Your task to perform on an android device: change notifications settings Image 0: 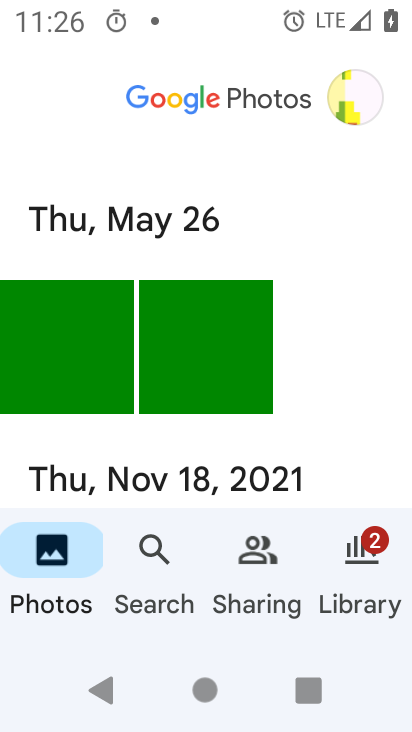
Step 0: drag from (214, 488) to (287, 261)
Your task to perform on an android device: change notifications settings Image 1: 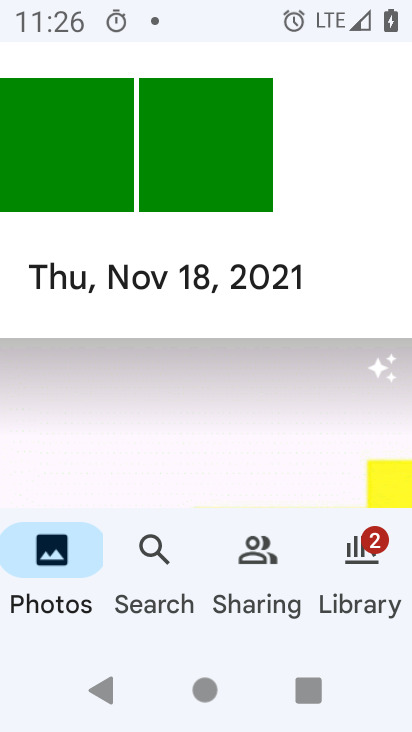
Step 1: drag from (358, 148) to (337, 694)
Your task to perform on an android device: change notifications settings Image 2: 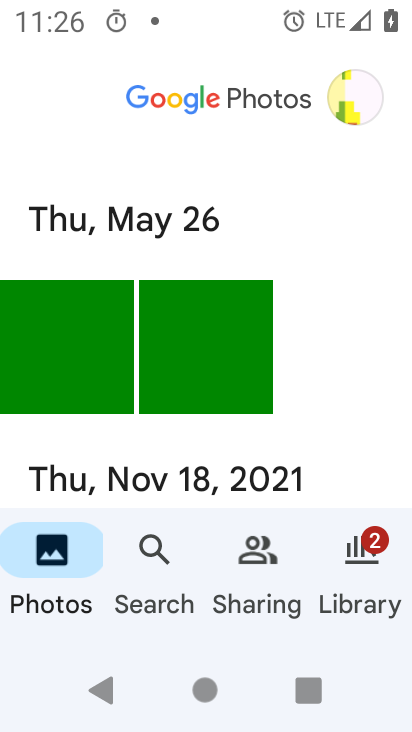
Step 2: press home button
Your task to perform on an android device: change notifications settings Image 3: 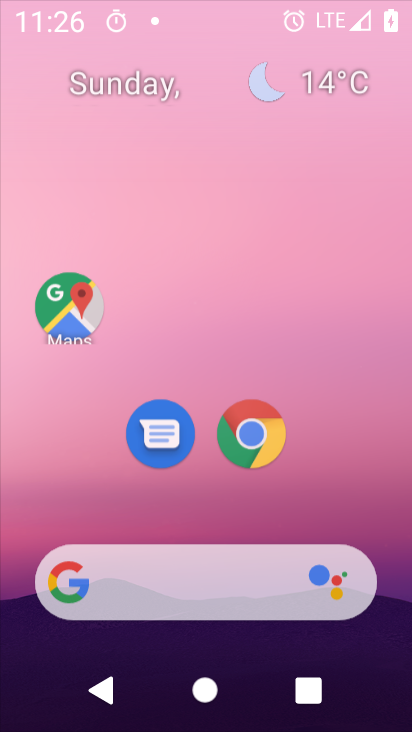
Step 3: drag from (193, 579) to (335, 248)
Your task to perform on an android device: change notifications settings Image 4: 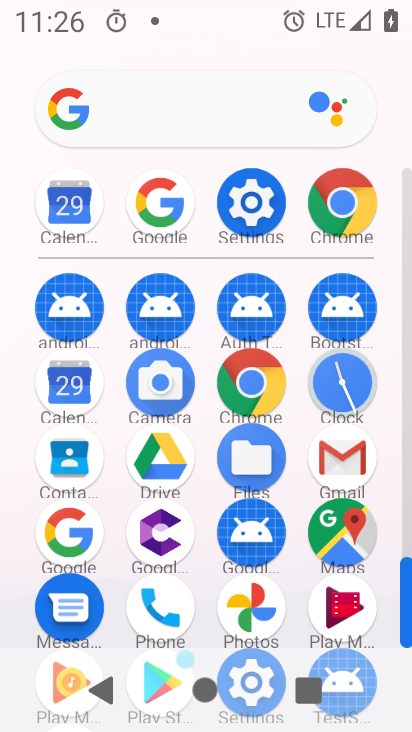
Step 4: click (248, 207)
Your task to perform on an android device: change notifications settings Image 5: 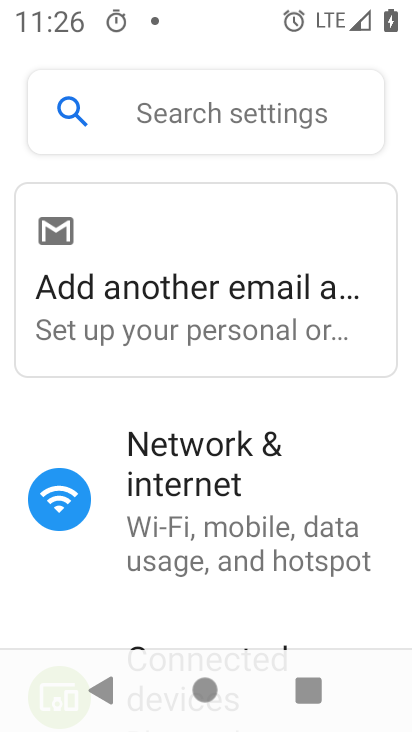
Step 5: drag from (296, 557) to (302, 331)
Your task to perform on an android device: change notifications settings Image 6: 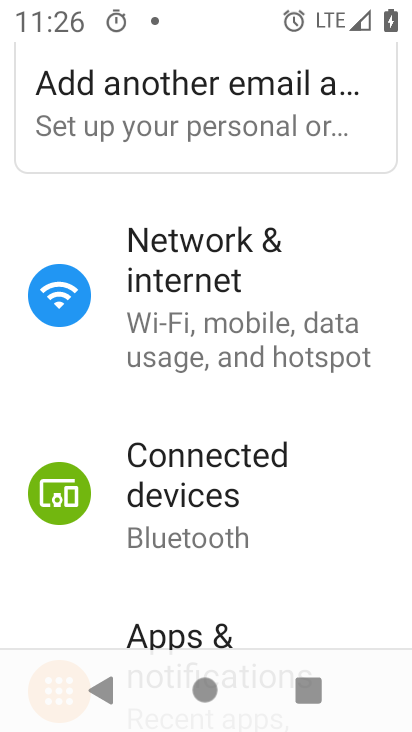
Step 6: drag from (233, 574) to (260, 310)
Your task to perform on an android device: change notifications settings Image 7: 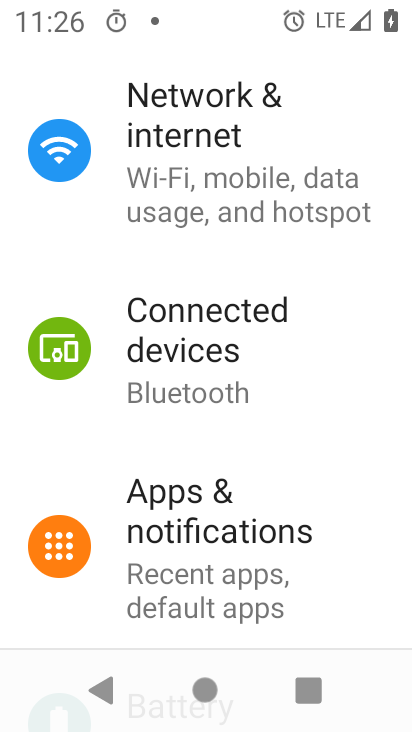
Step 7: click (201, 481)
Your task to perform on an android device: change notifications settings Image 8: 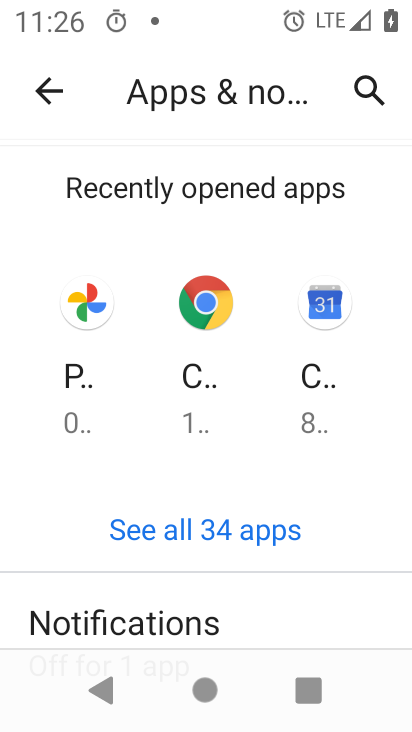
Step 8: drag from (217, 593) to (324, 105)
Your task to perform on an android device: change notifications settings Image 9: 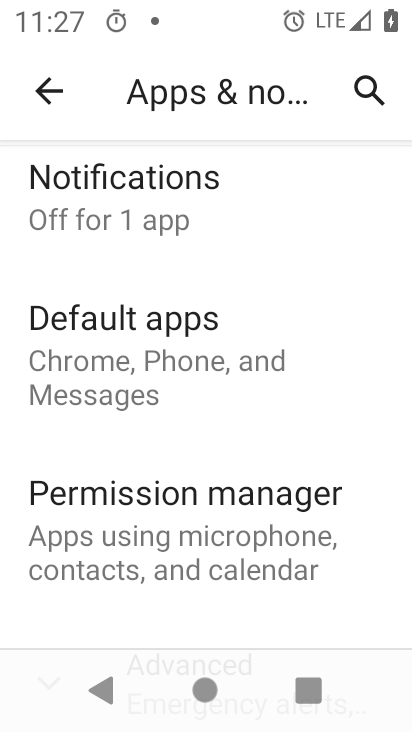
Step 9: drag from (190, 351) to (218, 241)
Your task to perform on an android device: change notifications settings Image 10: 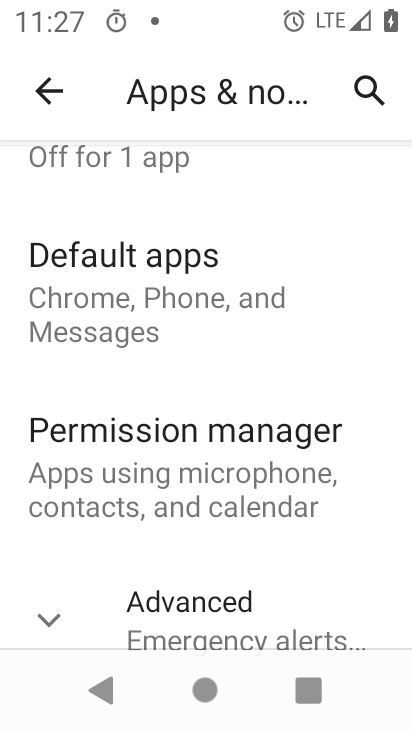
Step 10: drag from (186, 266) to (195, 521)
Your task to perform on an android device: change notifications settings Image 11: 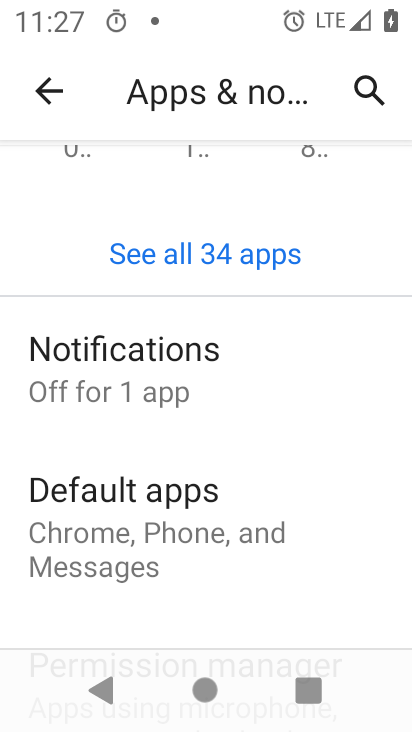
Step 11: click (150, 368)
Your task to perform on an android device: change notifications settings Image 12: 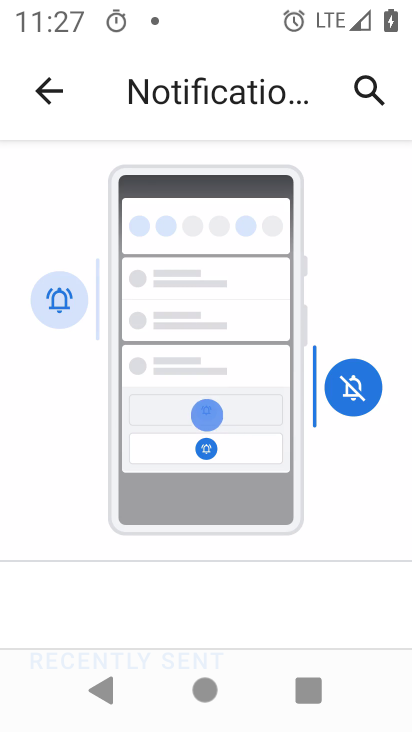
Step 12: drag from (243, 613) to (351, 120)
Your task to perform on an android device: change notifications settings Image 13: 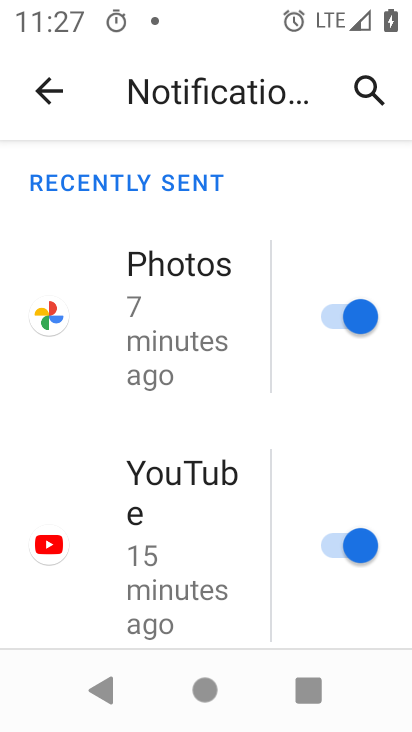
Step 13: drag from (192, 543) to (286, 108)
Your task to perform on an android device: change notifications settings Image 14: 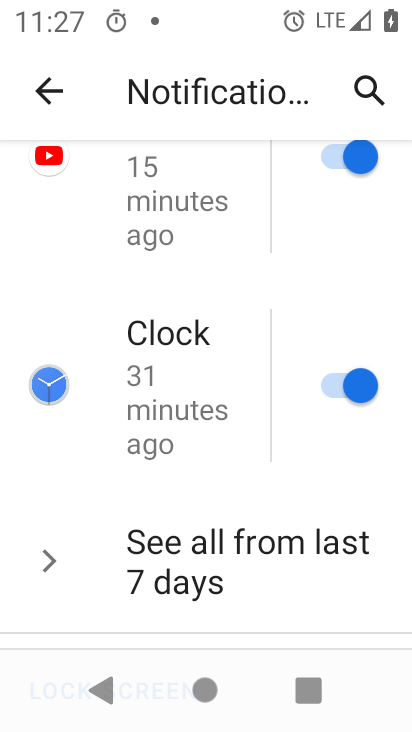
Step 14: drag from (184, 516) to (236, 160)
Your task to perform on an android device: change notifications settings Image 15: 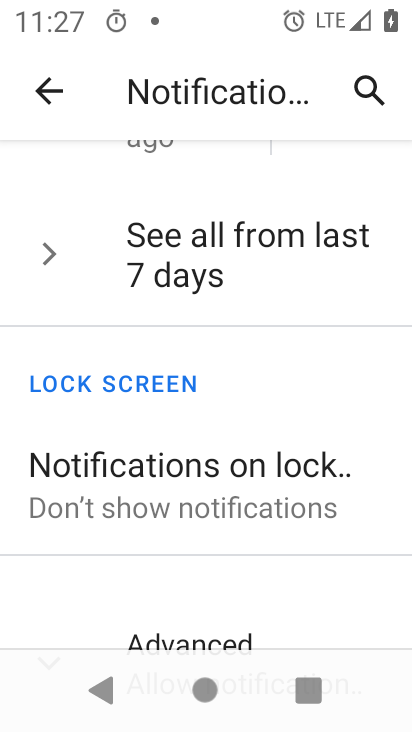
Step 15: drag from (218, 247) to (280, 669)
Your task to perform on an android device: change notifications settings Image 16: 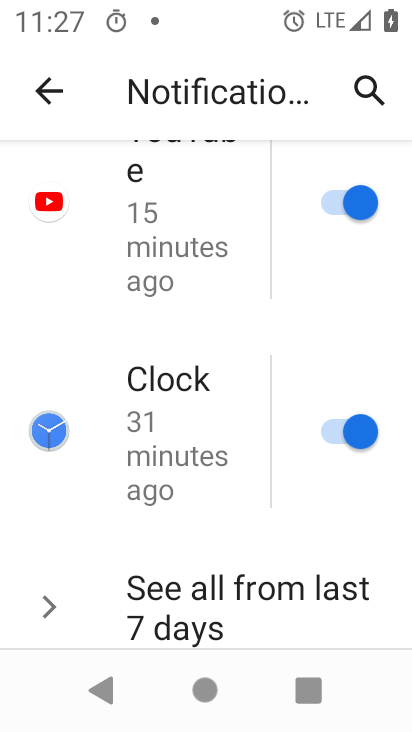
Step 16: click (363, 434)
Your task to perform on an android device: change notifications settings Image 17: 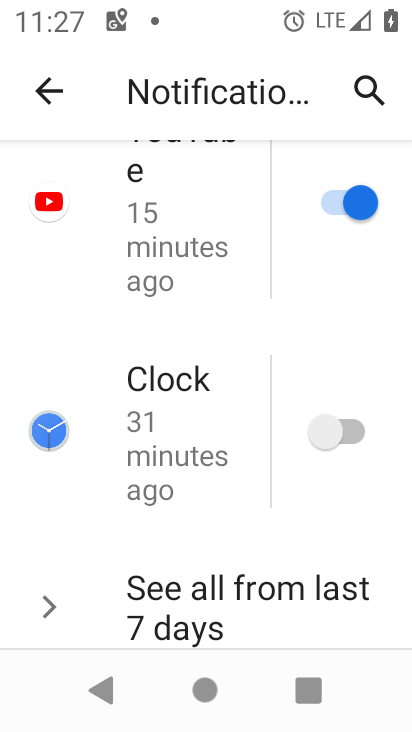
Step 17: task complete